Your task to perform on an android device: Search for seafood restaurants on Google Maps Image 0: 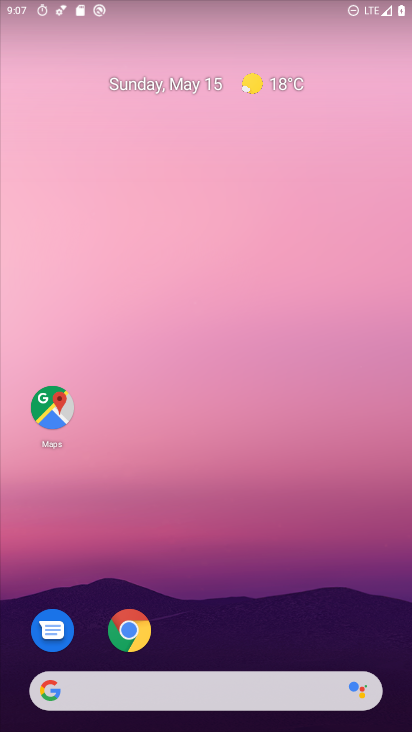
Step 0: click (244, 48)
Your task to perform on an android device: Search for seafood restaurants on Google Maps Image 1: 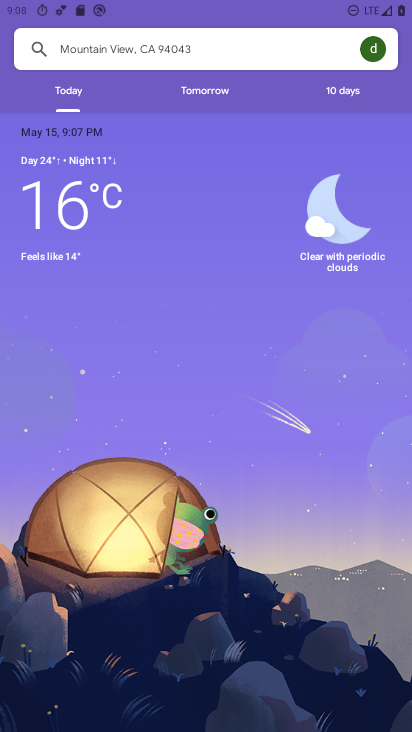
Step 1: press home button
Your task to perform on an android device: Search for seafood restaurants on Google Maps Image 2: 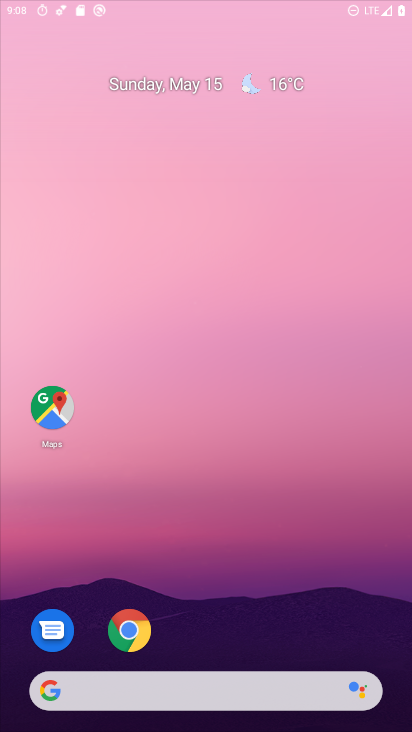
Step 2: drag from (146, 571) to (218, 353)
Your task to perform on an android device: Search for seafood restaurants on Google Maps Image 3: 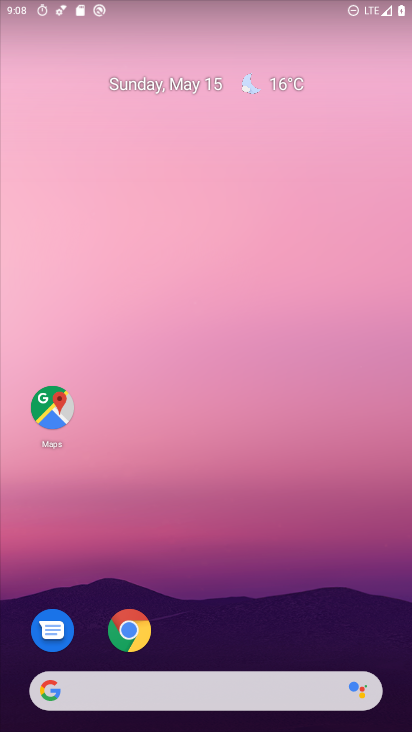
Step 3: drag from (147, 663) to (173, 191)
Your task to perform on an android device: Search for seafood restaurants on Google Maps Image 4: 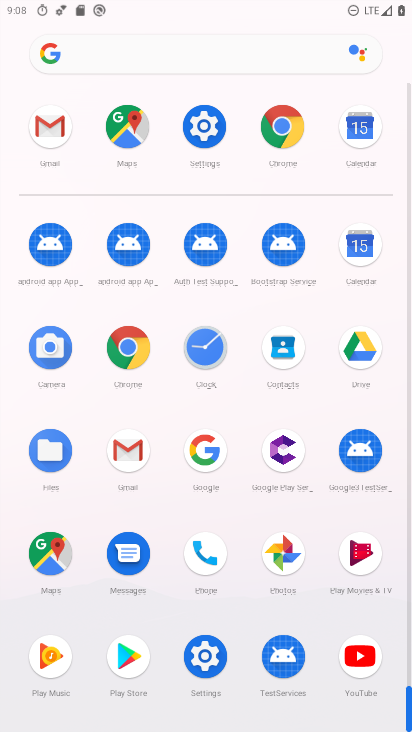
Step 4: click (41, 567)
Your task to perform on an android device: Search for seafood restaurants on Google Maps Image 5: 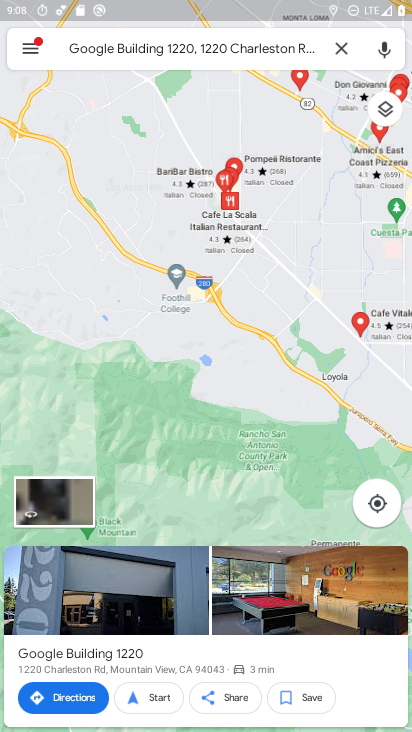
Step 5: drag from (238, 613) to (317, 367)
Your task to perform on an android device: Search for seafood restaurants on Google Maps Image 6: 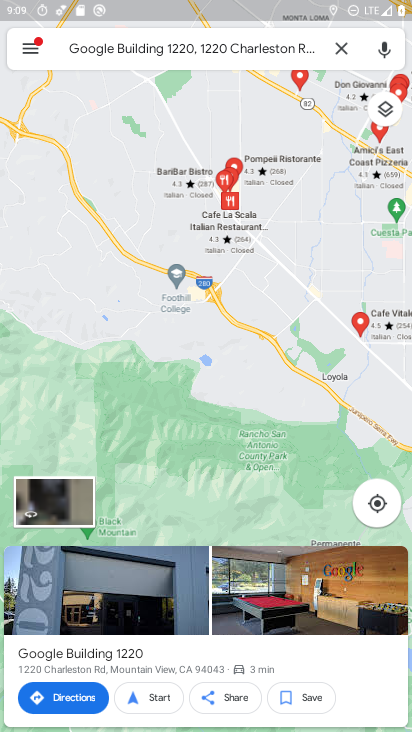
Step 6: drag from (233, 594) to (267, 432)
Your task to perform on an android device: Search for seafood restaurants on Google Maps Image 7: 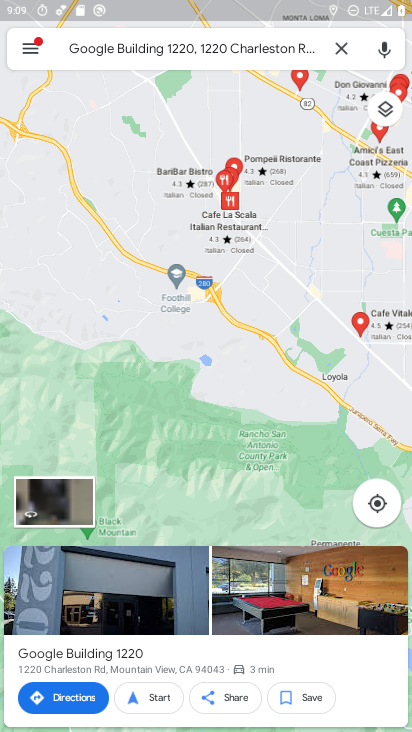
Step 7: drag from (210, 572) to (313, 100)
Your task to perform on an android device: Search for seafood restaurants on Google Maps Image 8: 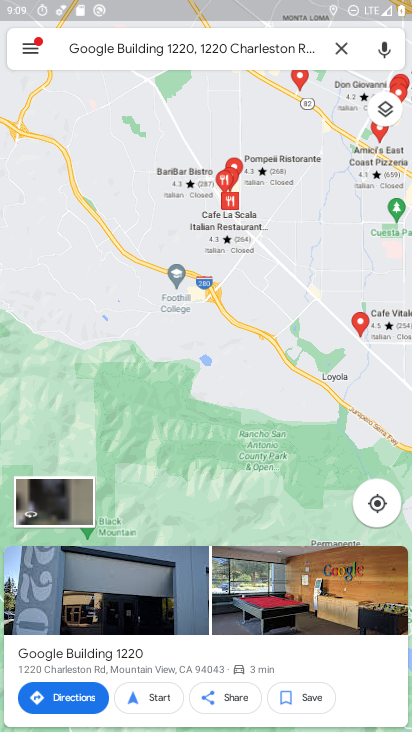
Step 8: click (351, 49)
Your task to perform on an android device: Search for seafood restaurants on Google Maps Image 9: 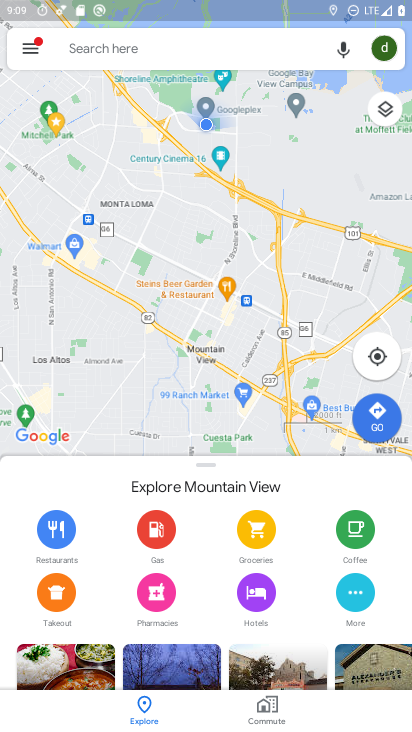
Step 9: click (204, 61)
Your task to perform on an android device: Search for seafood restaurants on Google Maps Image 10: 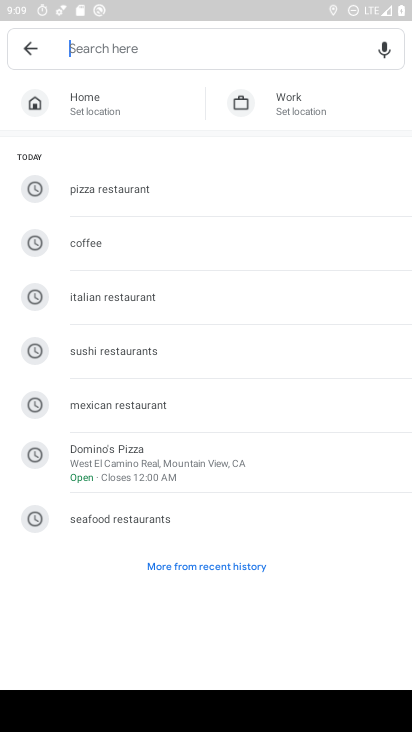
Step 10: click (145, 514)
Your task to perform on an android device: Search for seafood restaurants on Google Maps Image 11: 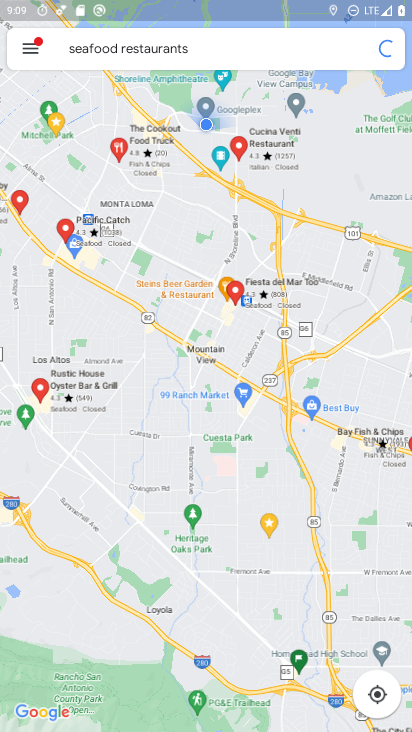
Step 11: task complete